Your task to perform on an android device: install app "Expedia: Hotels, Flights & Car" Image 0: 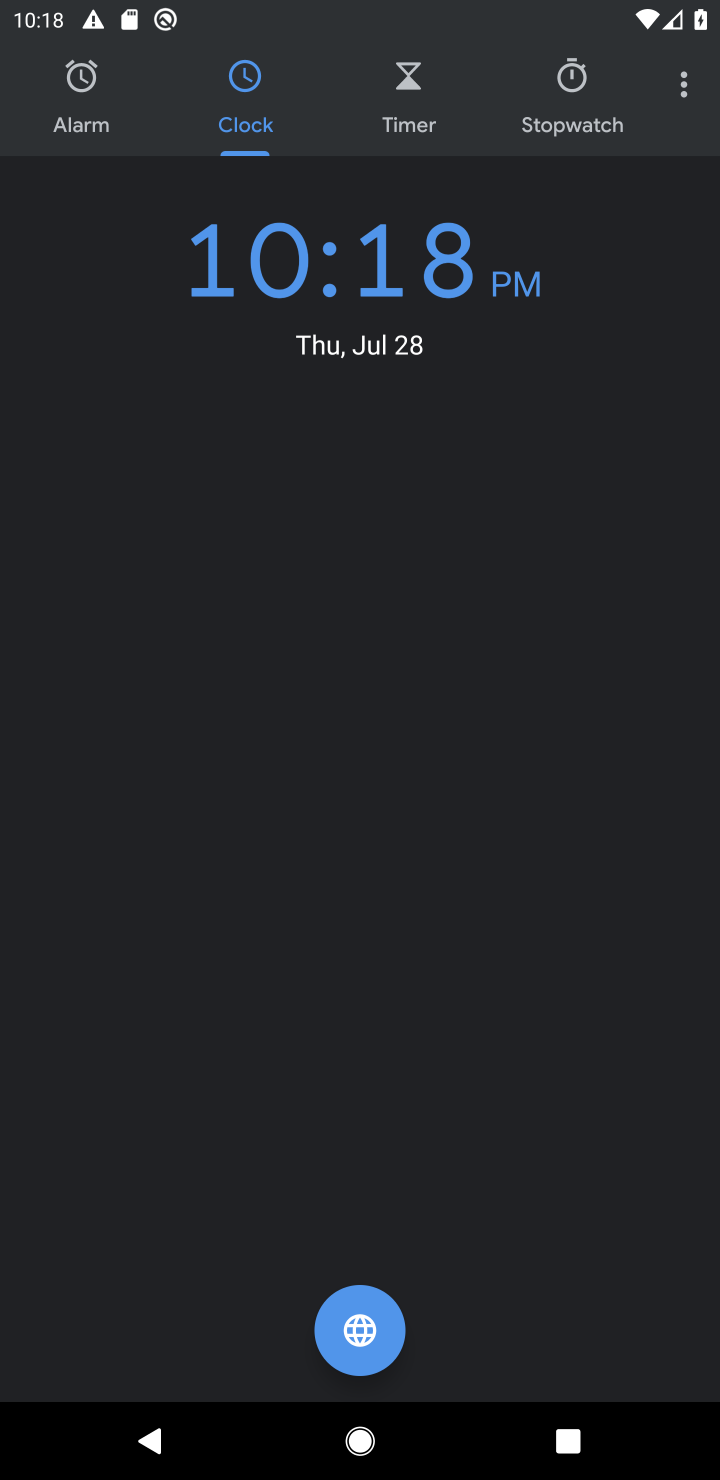
Step 0: press home button
Your task to perform on an android device: install app "Expedia: Hotels, Flights & Car" Image 1: 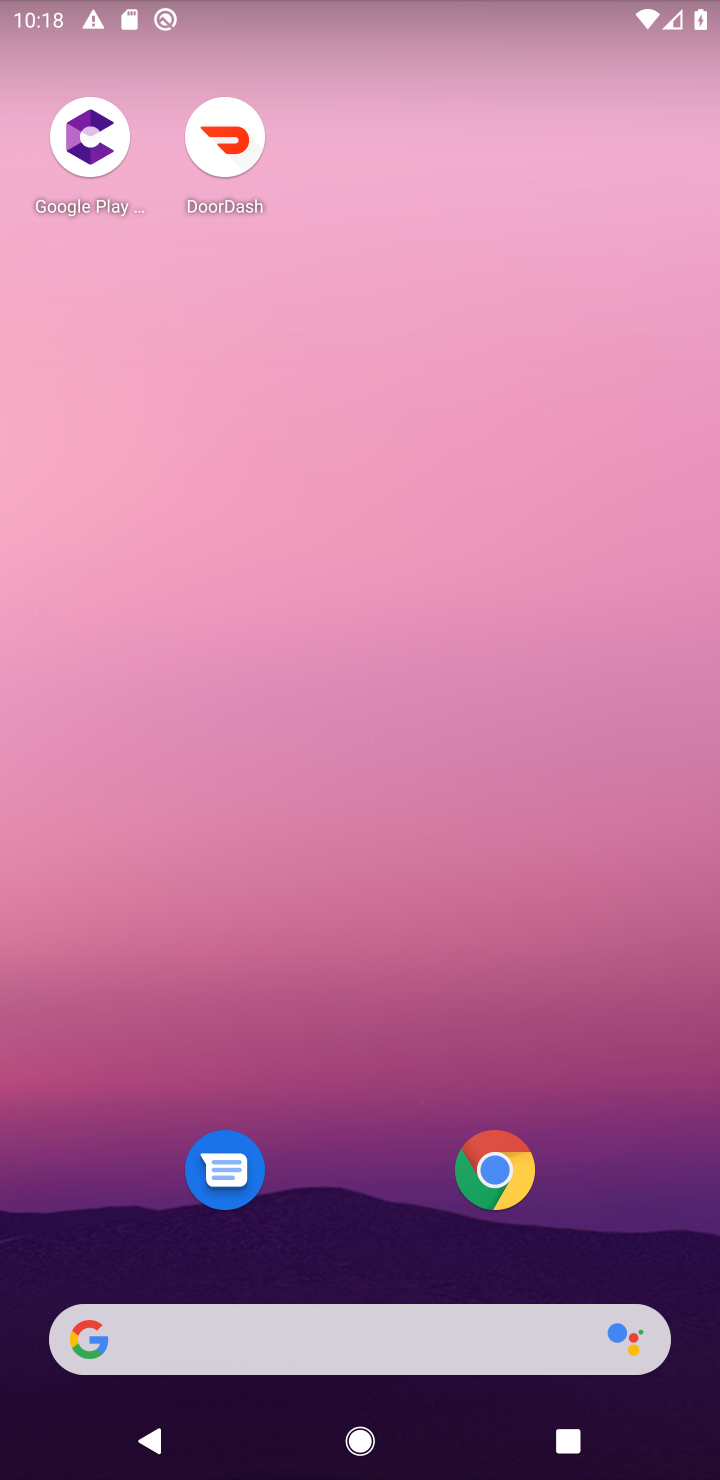
Step 1: drag from (359, 1237) to (323, 0)
Your task to perform on an android device: install app "Expedia: Hotels, Flights & Car" Image 2: 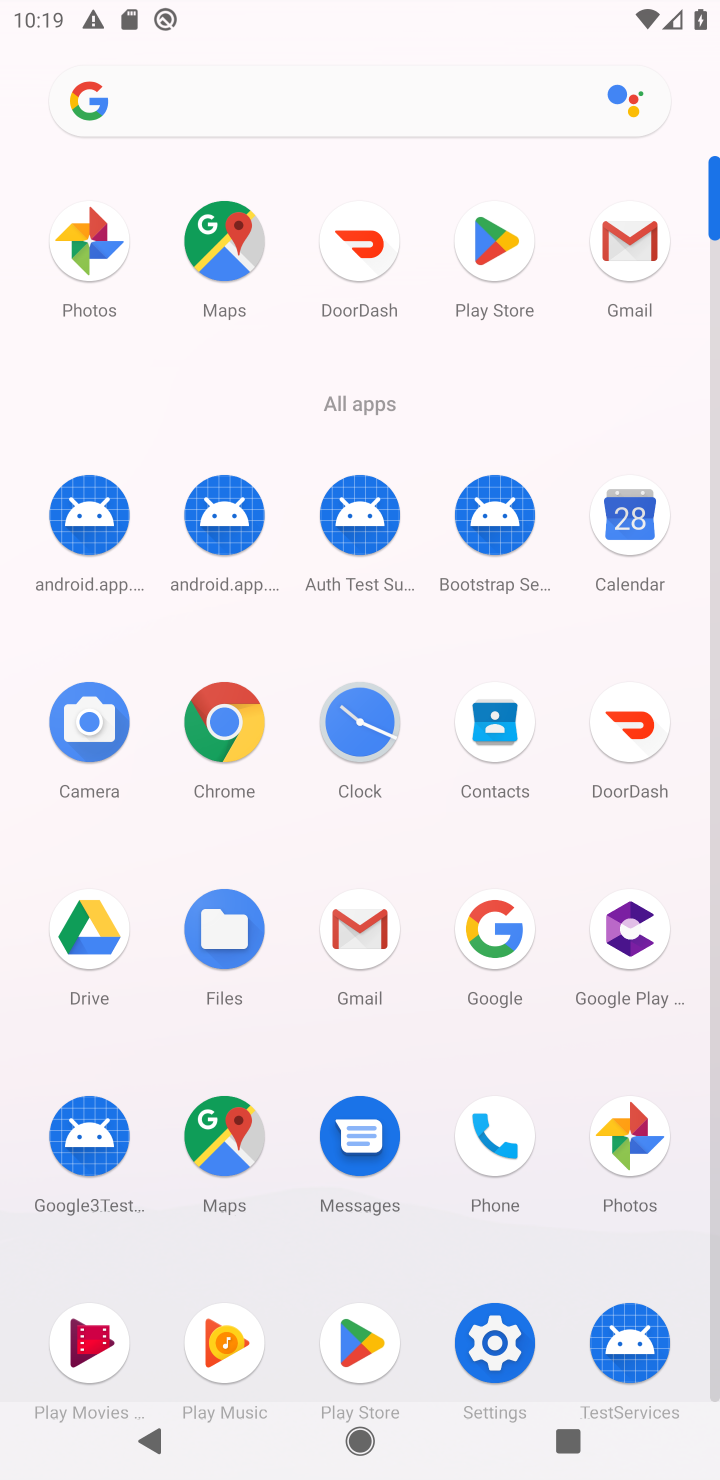
Step 2: click (357, 1329)
Your task to perform on an android device: install app "Expedia: Hotels, Flights & Car" Image 3: 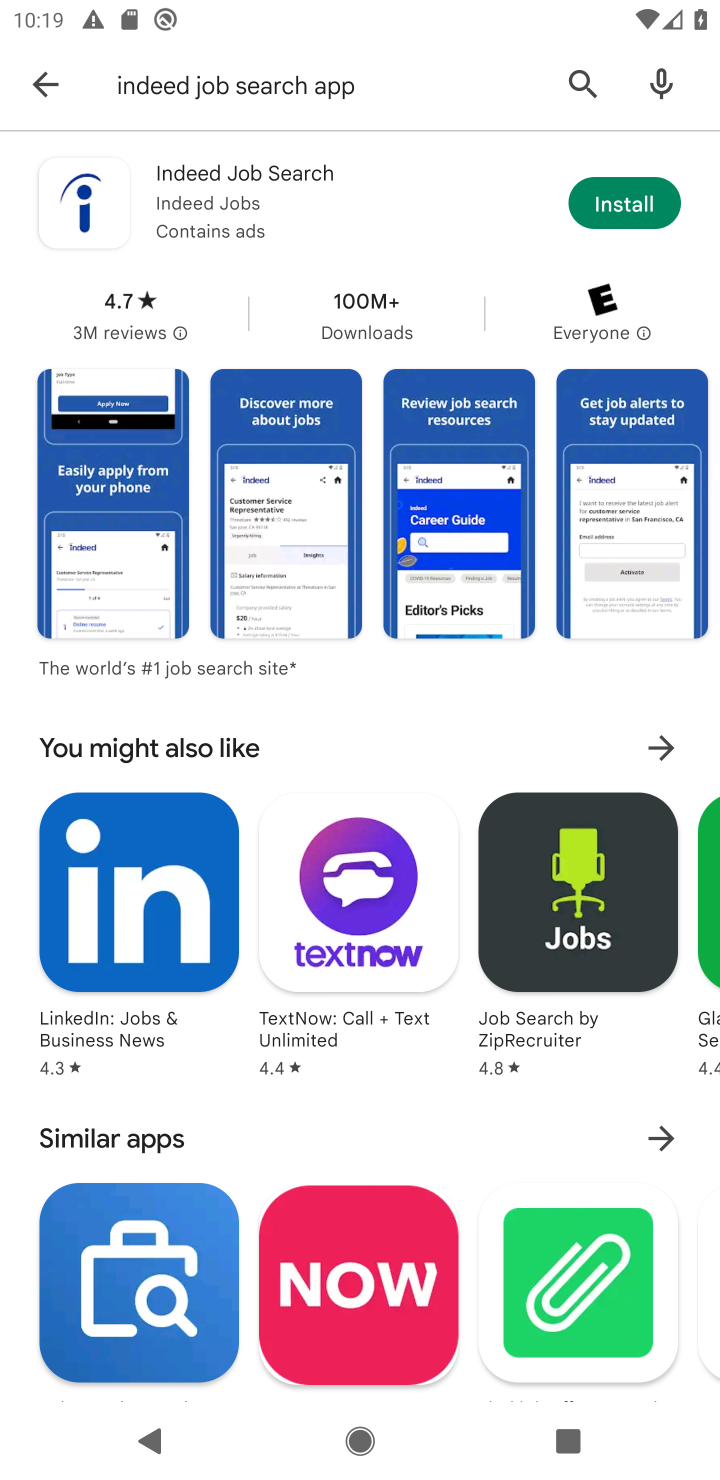
Step 3: click (266, 76)
Your task to perform on an android device: install app "Expedia: Hotels, Flights & Car" Image 4: 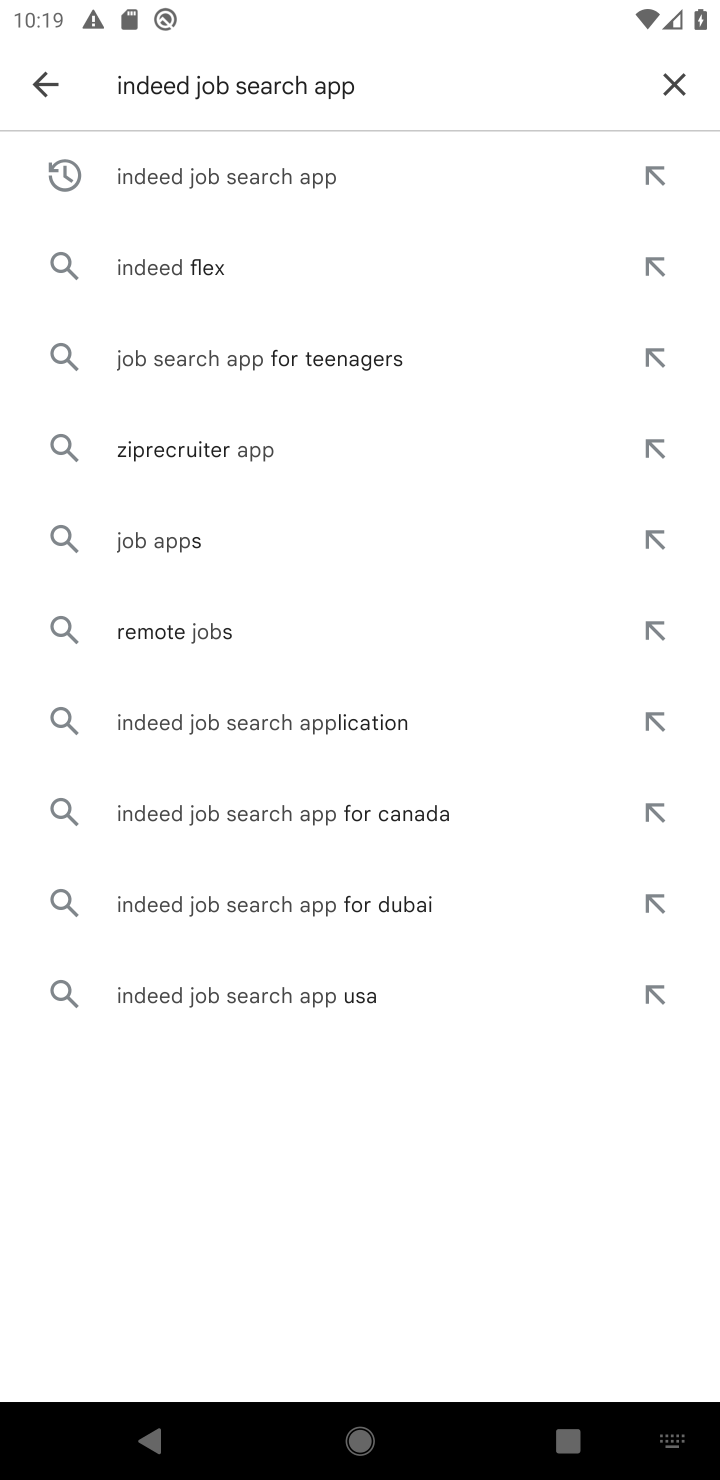
Step 4: click (657, 62)
Your task to perform on an android device: install app "Expedia: Hotels, Flights & Car" Image 5: 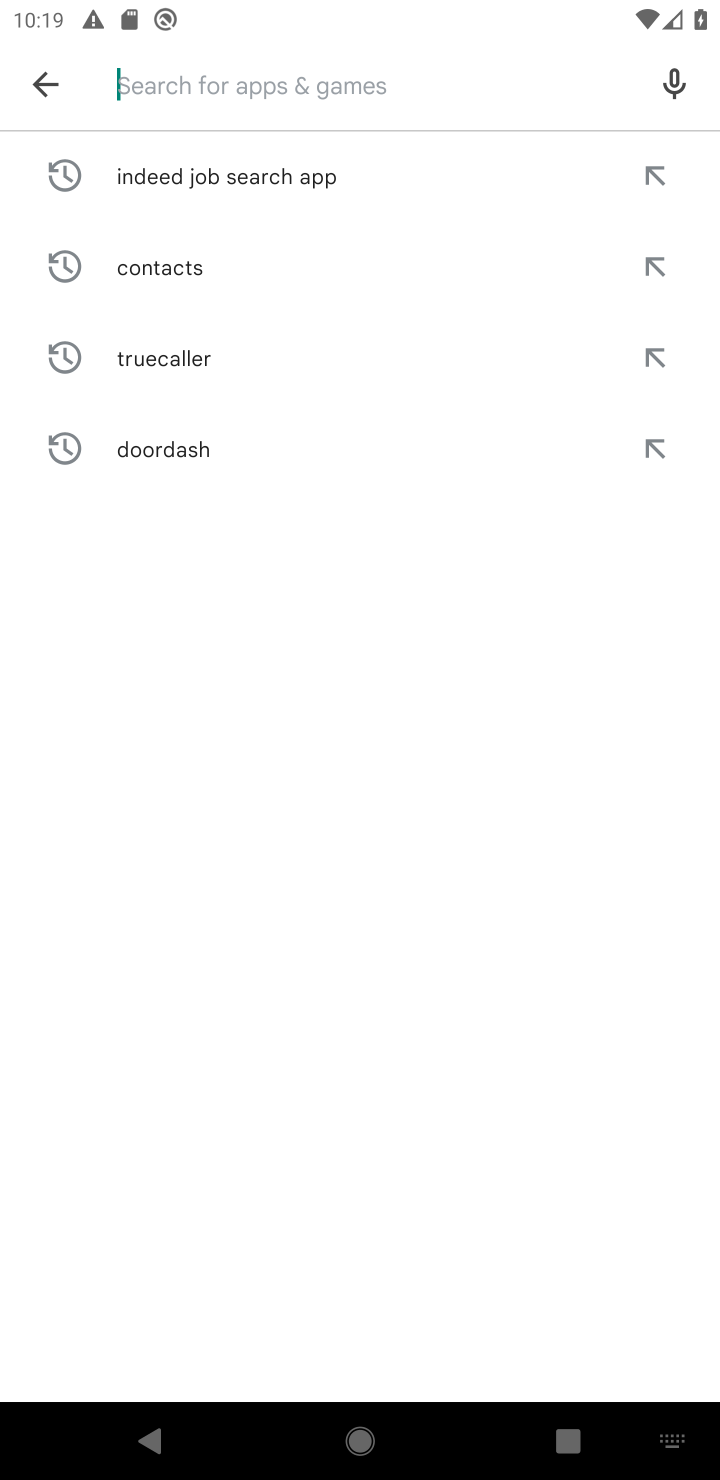
Step 5: type "Expedia"
Your task to perform on an android device: install app "Expedia: Hotels, Flights & Car" Image 6: 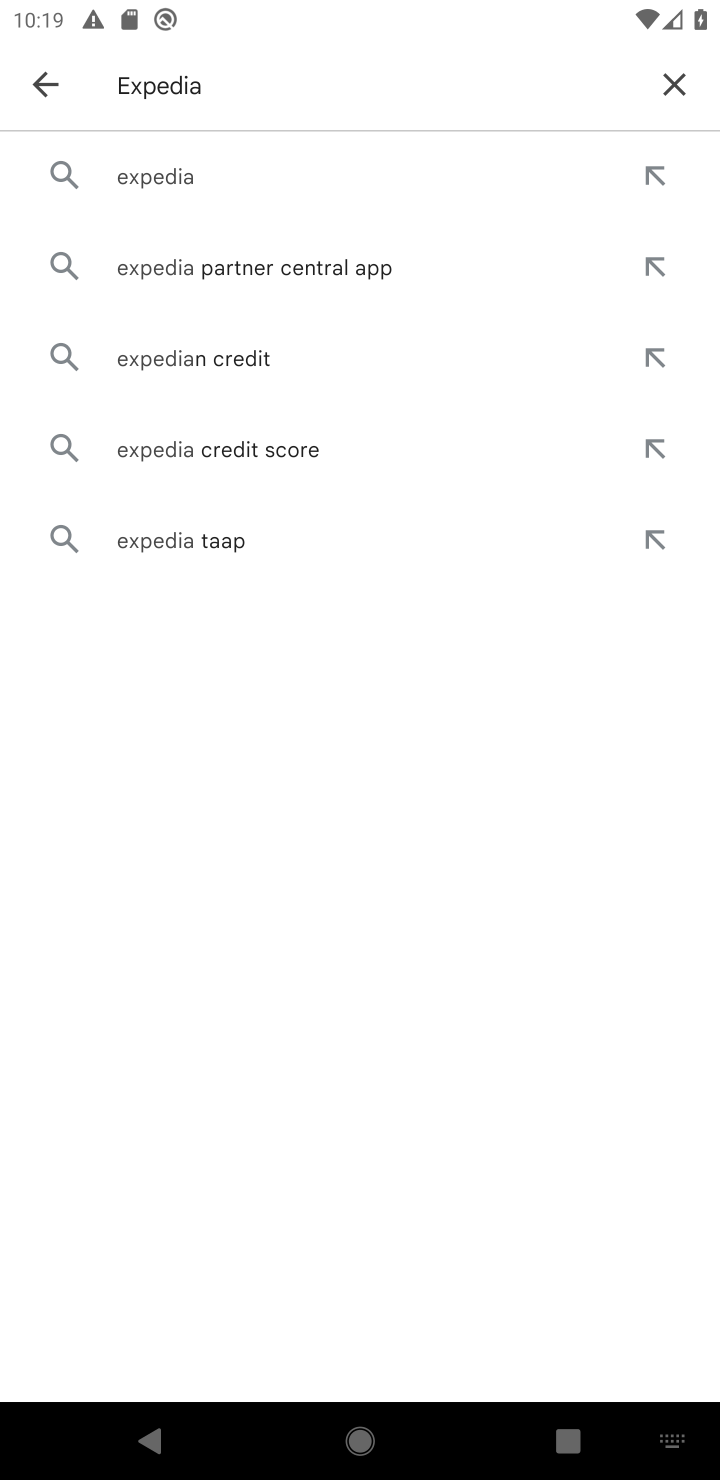
Step 6: click (201, 185)
Your task to perform on an android device: install app "Expedia: Hotels, Flights & Car" Image 7: 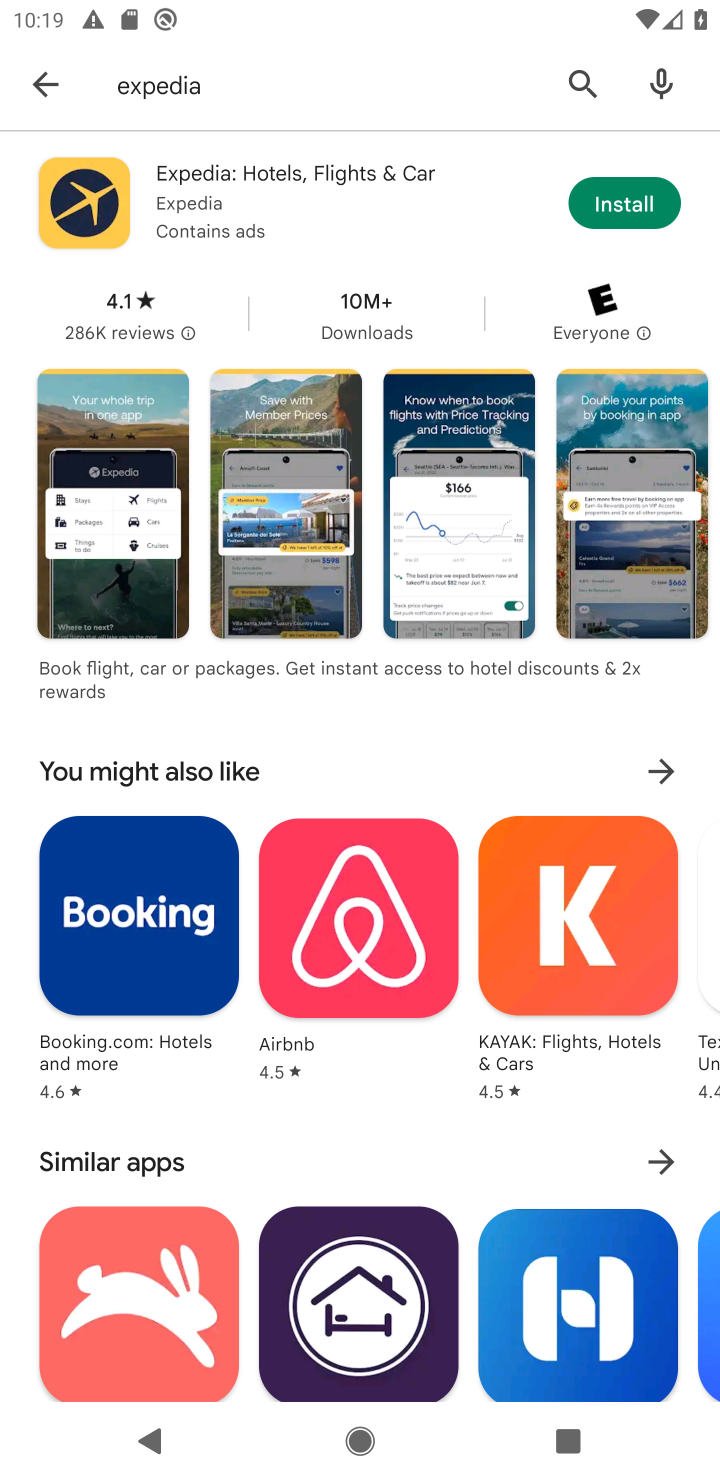
Step 7: click (615, 208)
Your task to perform on an android device: install app "Expedia: Hotels, Flights & Car" Image 8: 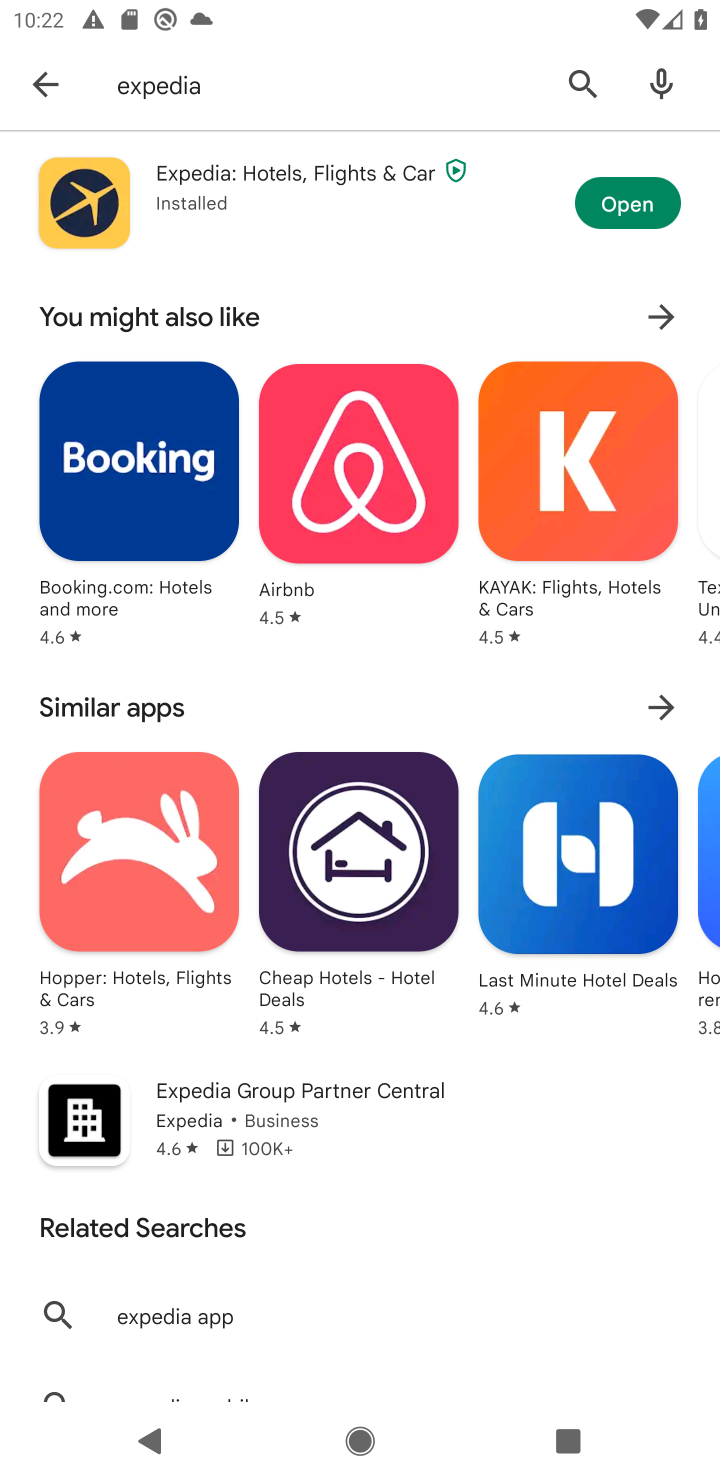
Step 8: task complete